Your task to perform on an android device: find photos in the google photos app Image 0: 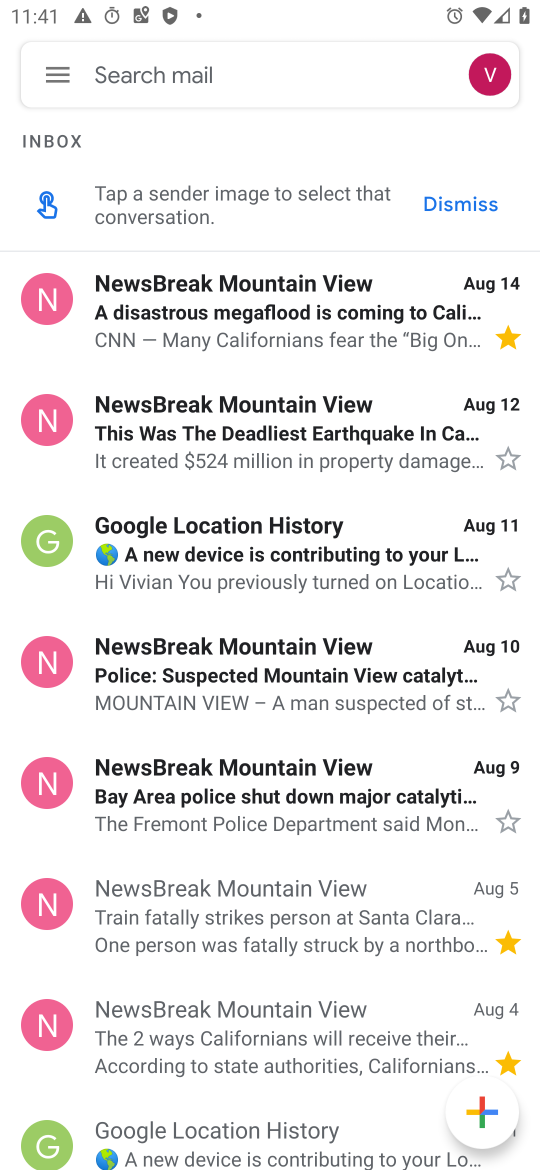
Step 0: press home button
Your task to perform on an android device: find photos in the google photos app Image 1: 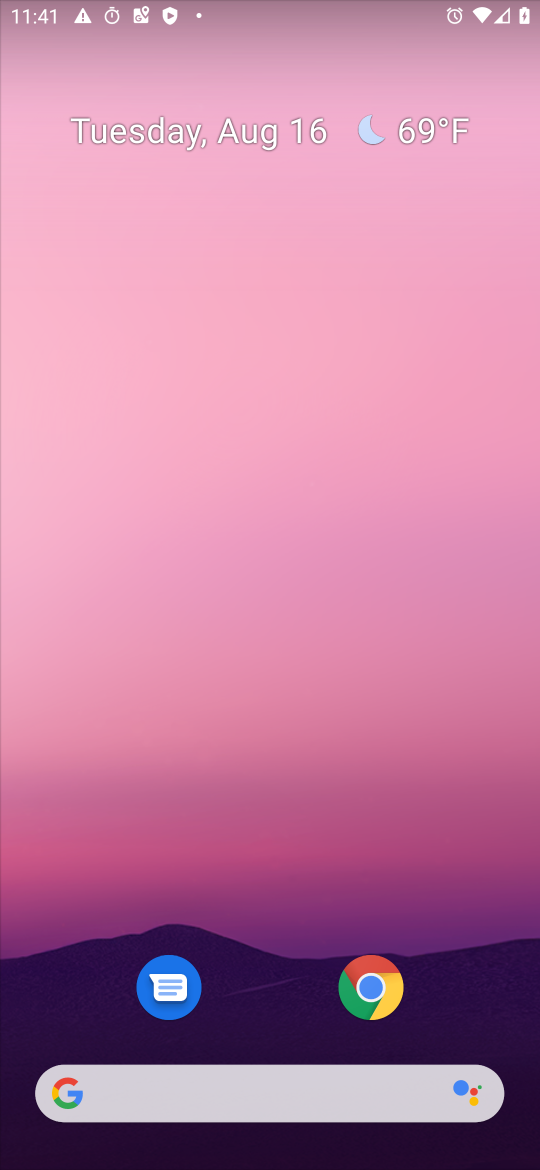
Step 1: drag from (20, 1095) to (326, 288)
Your task to perform on an android device: find photos in the google photos app Image 2: 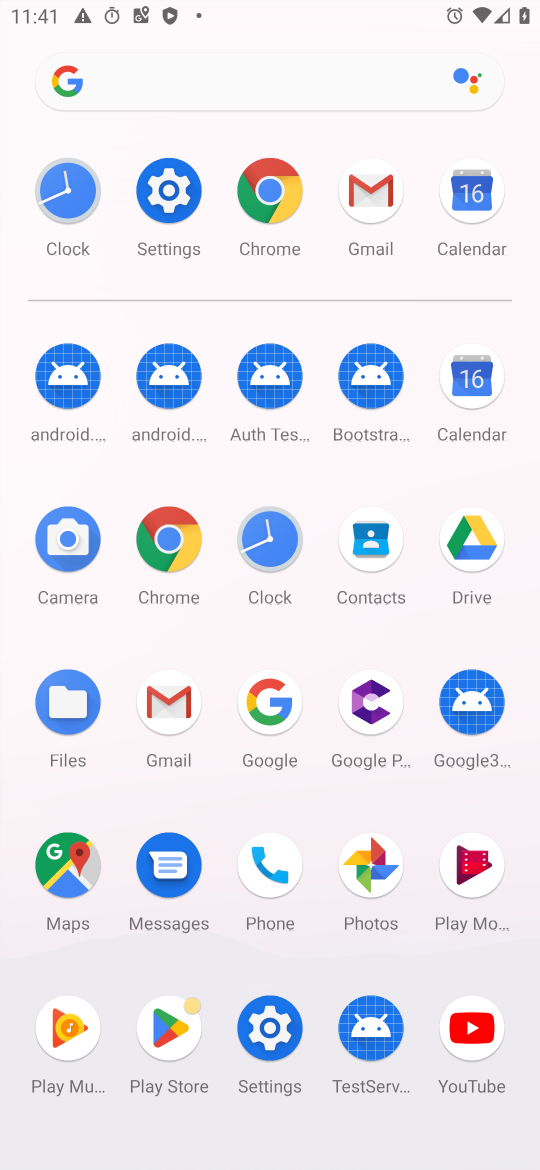
Step 2: click (361, 873)
Your task to perform on an android device: find photos in the google photos app Image 3: 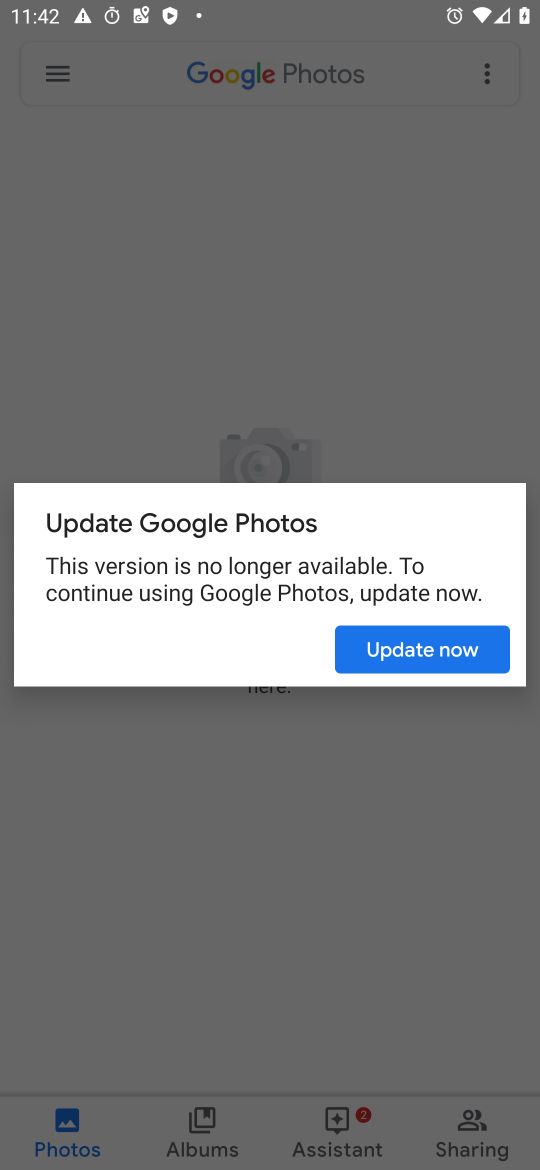
Step 3: click (413, 651)
Your task to perform on an android device: find photos in the google photos app Image 4: 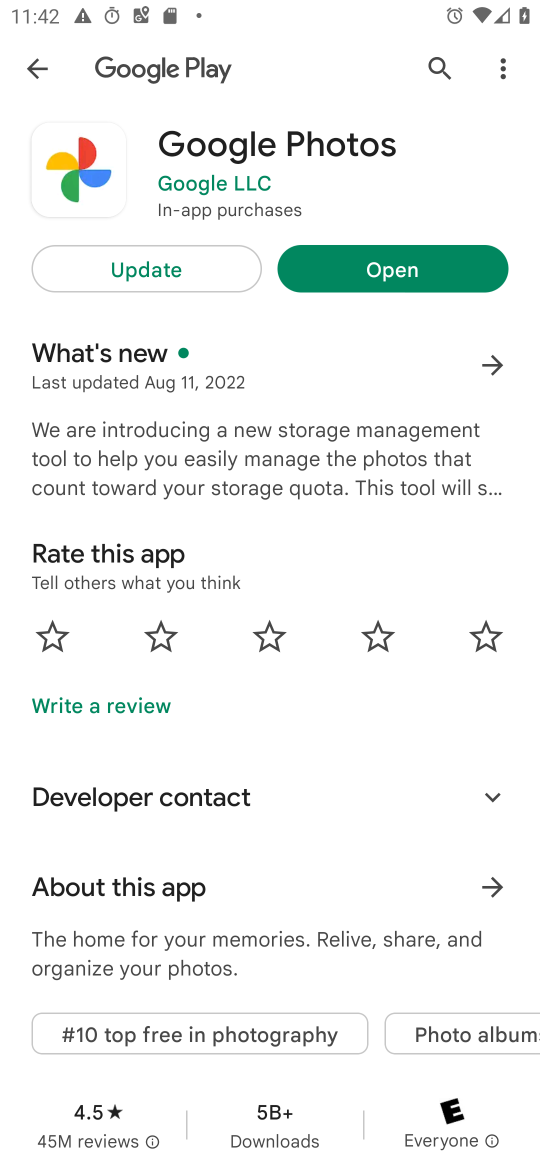
Step 4: click (391, 273)
Your task to perform on an android device: find photos in the google photos app Image 5: 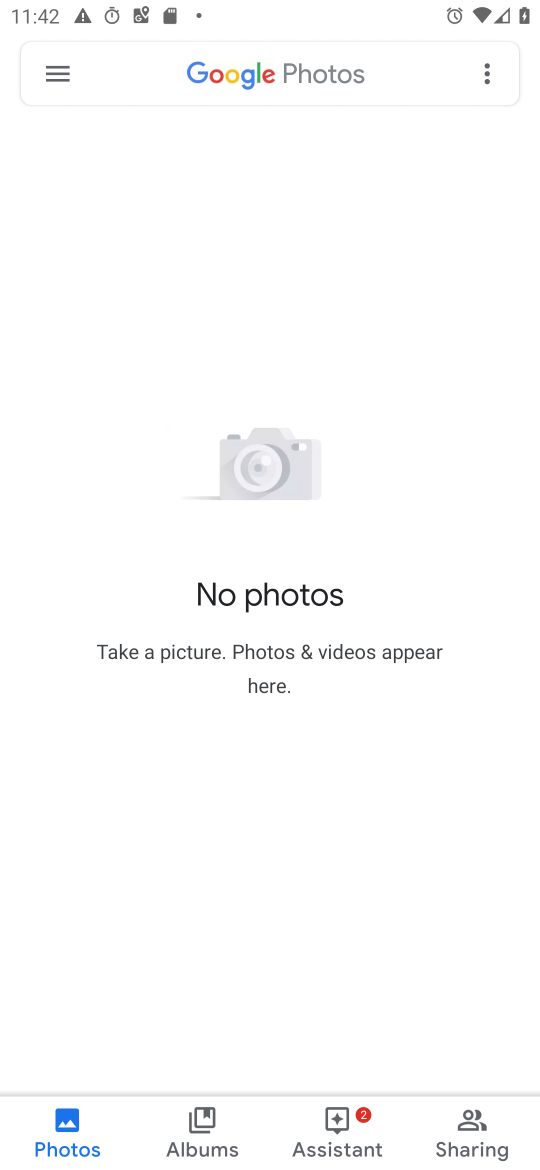
Step 5: task complete